Your task to perform on an android device: Search for pizza restaurants on Maps Image 0: 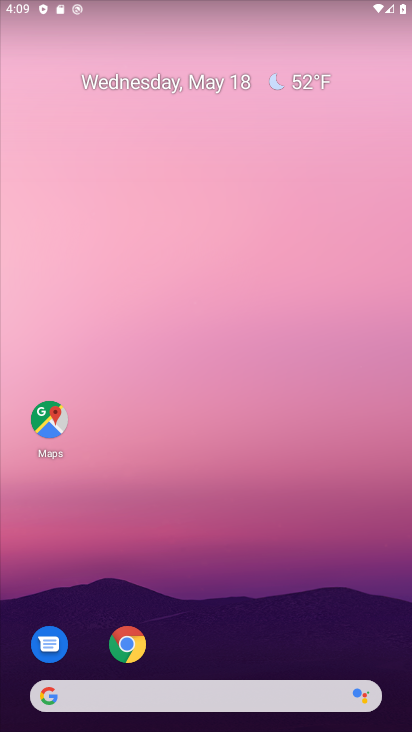
Step 0: drag from (215, 664) to (279, 16)
Your task to perform on an android device: Search for pizza restaurants on Maps Image 1: 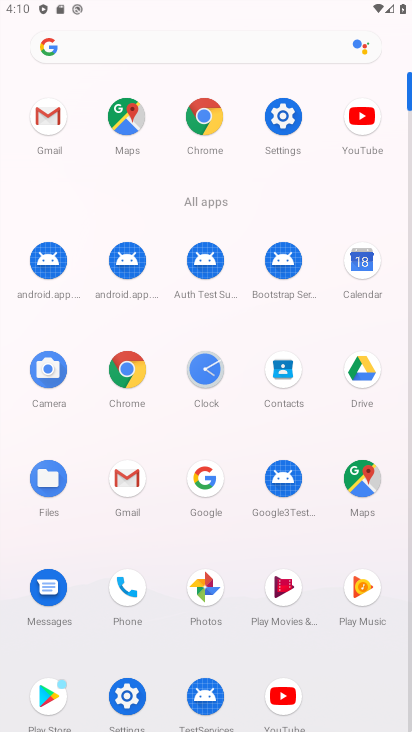
Step 1: click (363, 473)
Your task to perform on an android device: Search for pizza restaurants on Maps Image 2: 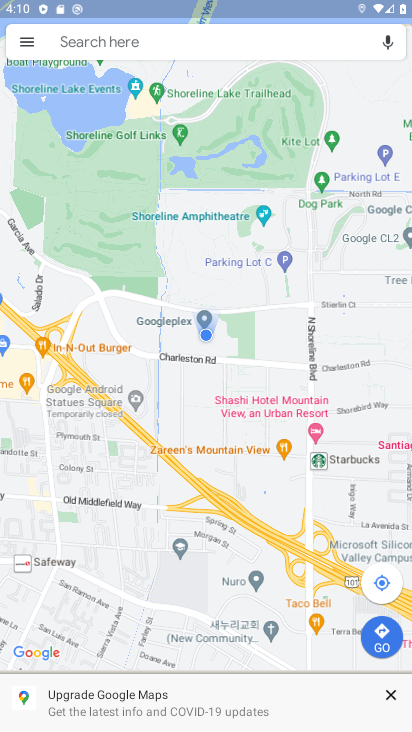
Step 2: click (197, 54)
Your task to perform on an android device: Search for pizza restaurants on Maps Image 3: 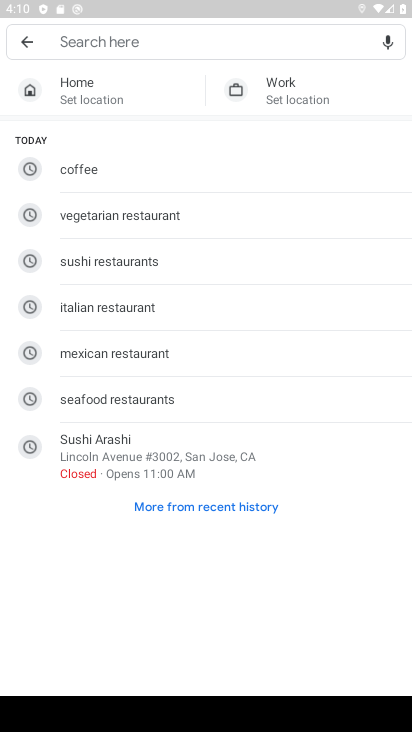
Step 3: type "pizzaa"
Your task to perform on an android device: Search for pizza restaurants on Maps Image 4: 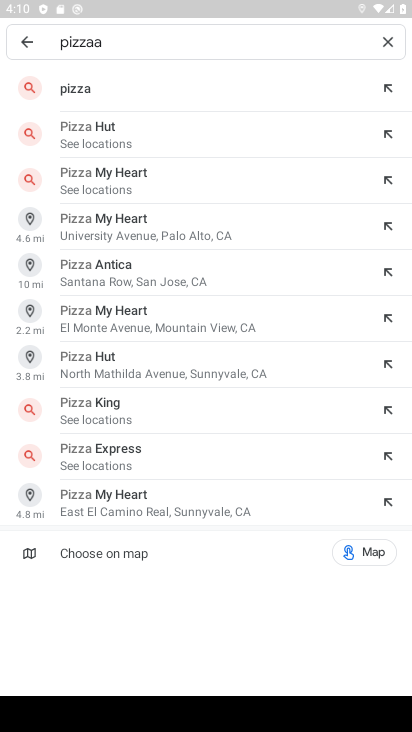
Step 4: click (136, 44)
Your task to perform on an android device: Search for pizza restaurants on Maps Image 5: 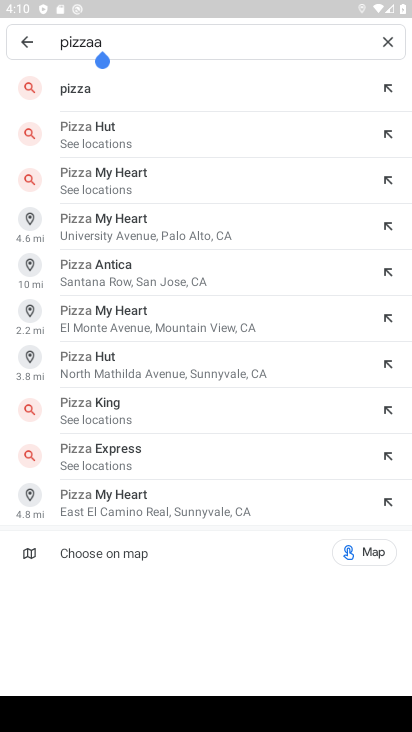
Step 5: type " rest"
Your task to perform on an android device: Search for pizza restaurants on Maps Image 6: 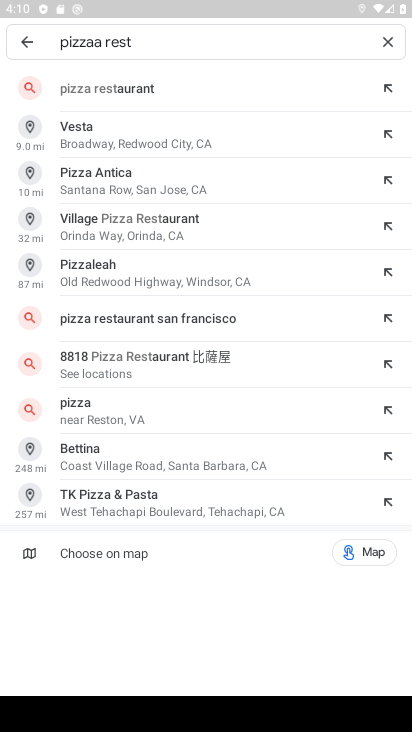
Step 6: click (126, 99)
Your task to perform on an android device: Search for pizza restaurants on Maps Image 7: 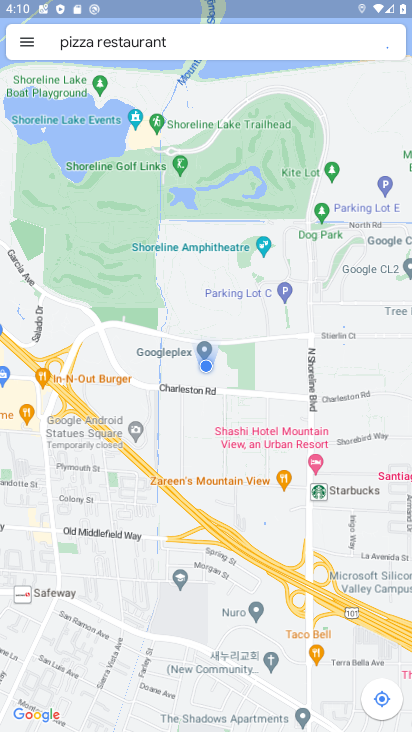
Step 7: task complete